Your task to perform on an android device: open app "Adobe Express: Graphic Design" (install if not already installed) Image 0: 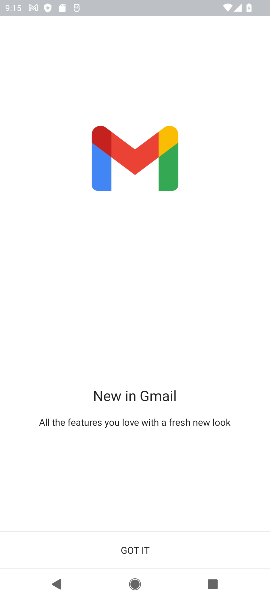
Step 0: click (149, 540)
Your task to perform on an android device: open app "Adobe Express: Graphic Design" (install if not already installed) Image 1: 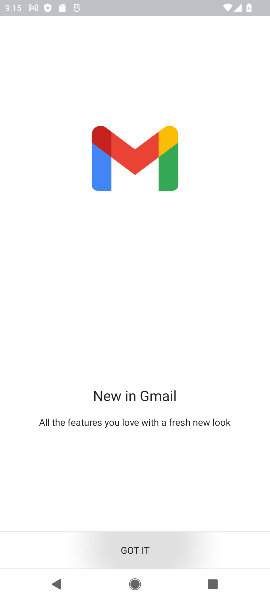
Step 1: click (149, 540)
Your task to perform on an android device: open app "Adobe Express: Graphic Design" (install if not already installed) Image 2: 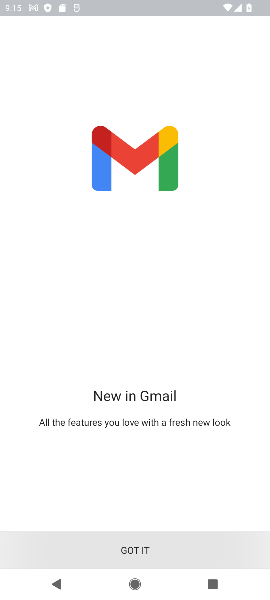
Step 2: click (149, 540)
Your task to perform on an android device: open app "Adobe Express: Graphic Design" (install if not already installed) Image 3: 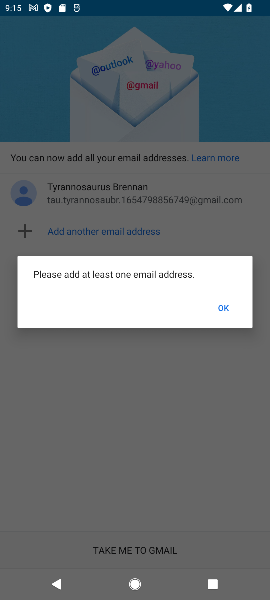
Step 3: click (223, 308)
Your task to perform on an android device: open app "Adobe Express: Graphic Design" (install if not already installed) Image 4: 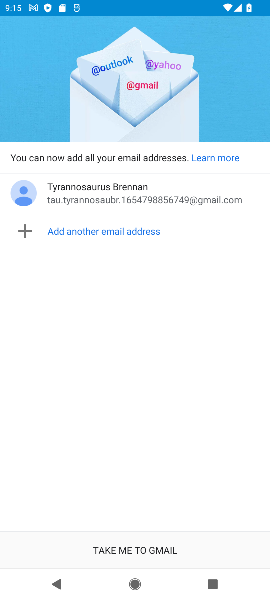
Step 4: click (155, 538)
Your task to perform on an android device: open app "Adobe Express: Graphic Design" (install if not already installed) Image 5: 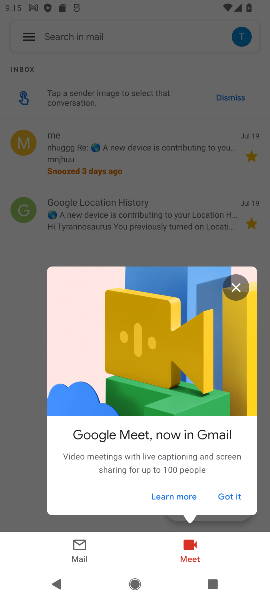
Step 5: click (231, 496)
Your task to perform on an android device: open app "Adobe Express: Graphic Design" (install if not already installed) Image 6: 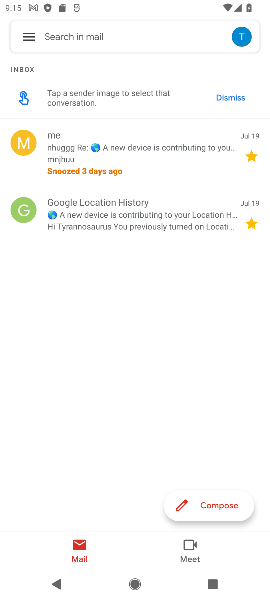
Step 6: press back button
Your task to perform on an android device: open app "Adobe Express: Graphic Design" (install if not already installed) Image 7: 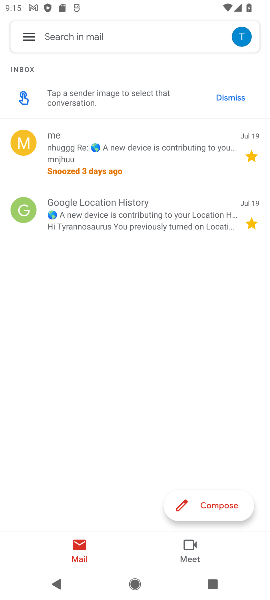
Step 7: press back button
Your task to perform on an android device: open app "Adobe Express: Graphic Design" (install if not already installed) Image 8: 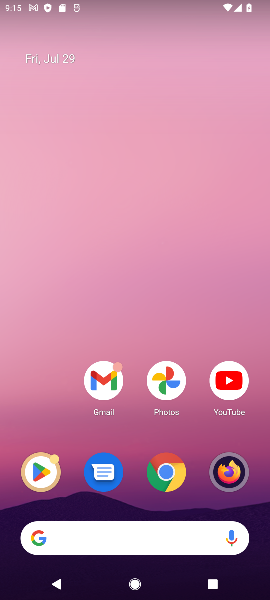
Step 8: press back button
Your task to perform on an android device: open app "Adobe Express: Graphic Design" (install if not already installed) Image 9: 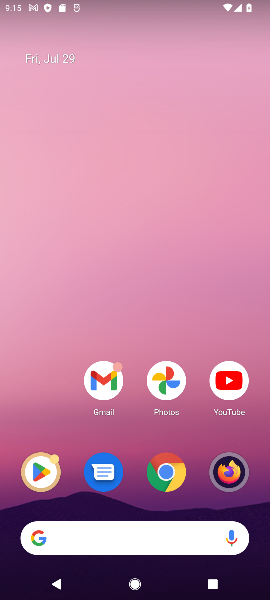
Step 9: drag from (190, 450) to (124, 47)
Your task to perform on an android device: open app "Adobe Express: Graphic Design" (install if not already installed) Image 10: 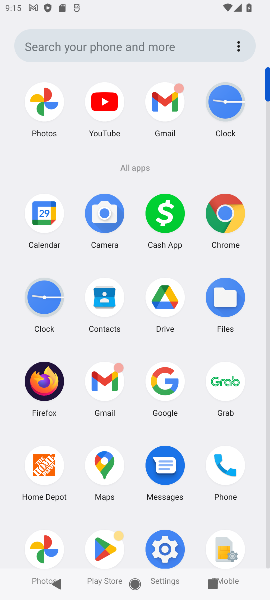
Step 10: drag from (135, 466) to (136, 190)
Your task to perform on an android device: open app "Adobe Express: Graphic Design" (install if not already installed) Image 11: 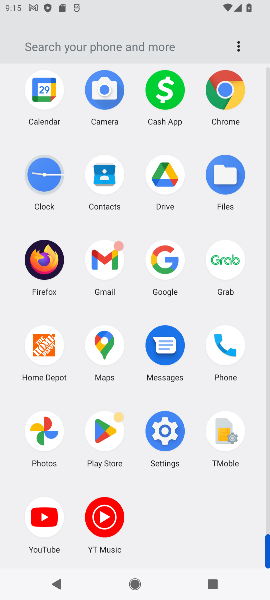
Step 11: drag from (152, 428) to (140, 257)
Your task to perform on an android device: open app "Adobe Express: Graphic Design" (install if not already installed) Image 12: 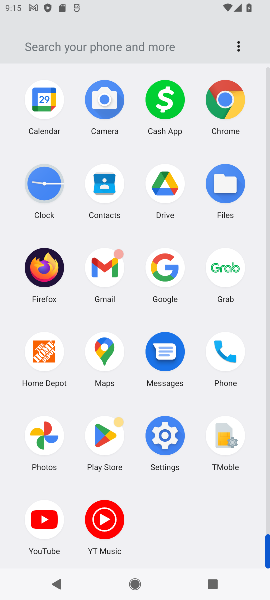
Step 12: click (104, 443)
Your task to perform on an android device: open app "Adobe Express: Graphic Design" (install if not already installed) Image 13: 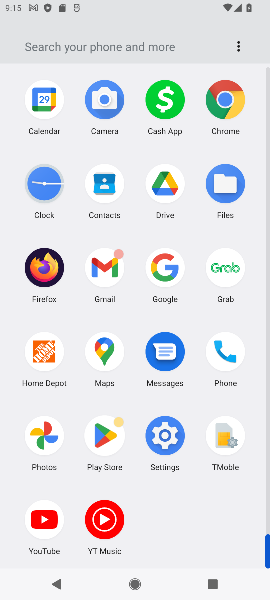
Step 13: click (105, 443)
Your task to perform on an android device: open app "Adobe Express: Graphic Design" (install if not already installed) Image 14: 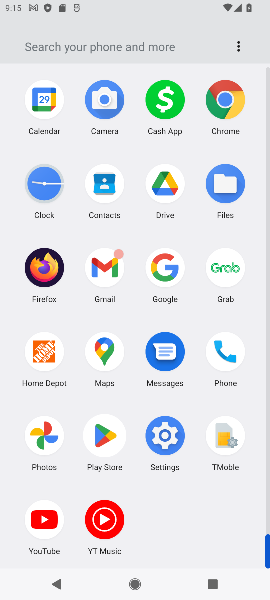
Step 14: click (105, 443)
Your task to perform on an android device: open app "Adobe Express: Graphic Design" (install if not already installed) Image 15: 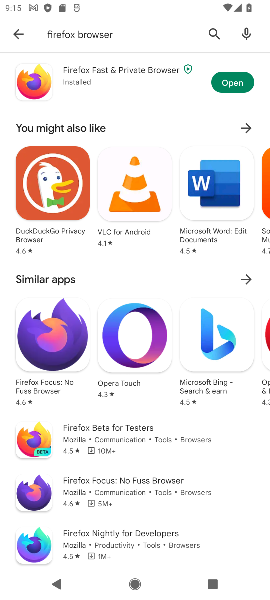
Step 15: click (76, 32)
Your task to perform on an android device: open app "Adobe Express: Graphic Design" (install if not already installed) Image 16: 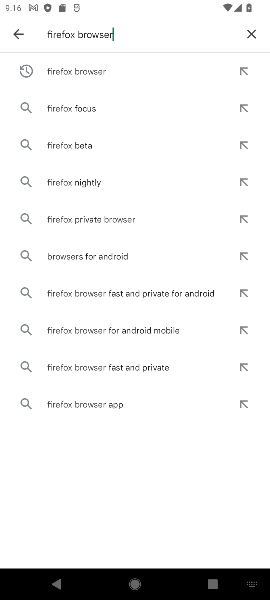
Step 16: click (254, 29)
Your task to perform on an android device: open app "Adobe Express: Graphic Design" (install if not already installed) Image 17: 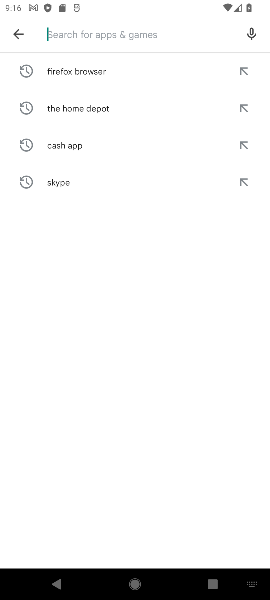
Step 17: type "Adobe Express: Graphic Design"
Your task to perform on an android device: open app "Adobe Express: Graphic Design" (install if not already installed) Image 18: 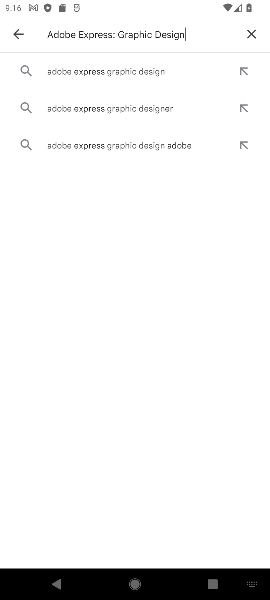
Step 18: click (130, 69)
Your task to perform on an android device: open app "Adobe Express: Graphic Design" (install if not already installed) Image 19: 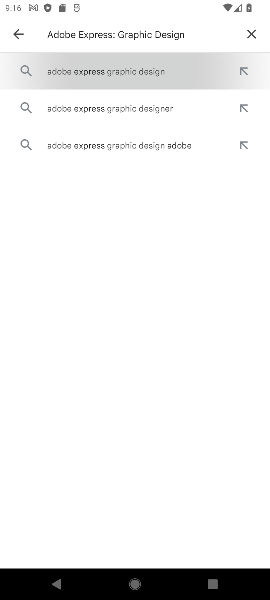
Step 19: click (130, 69)
Your task to perform on an android device: open app "Adobe Express: Graphic Design" (install if not already installed) Image 20: 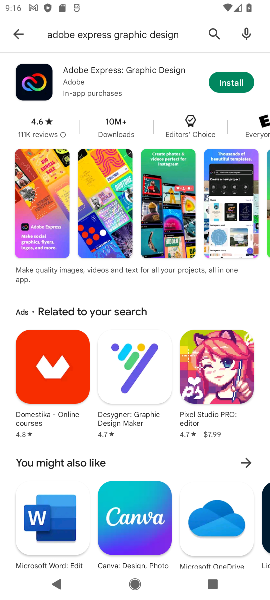
Step 20: click (224, 76)
Your task to perform on an android device: open app "Adobe Express: Graphic Design" (install if not already installed) Image 21: 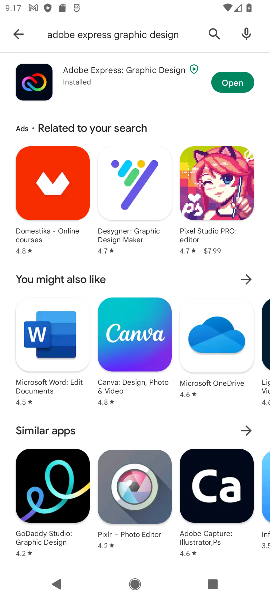
Step 21: task complete